Your task to perform on an android device: set the timer Image 0: 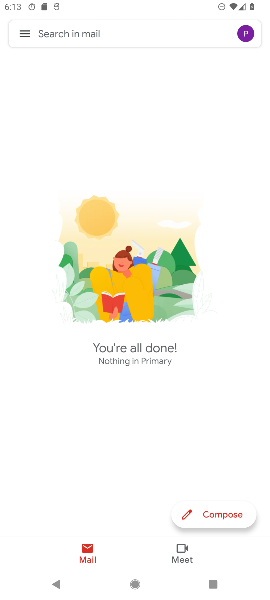
Step 0: press back button
Your task to perform on an android device: set the timer Image 1: 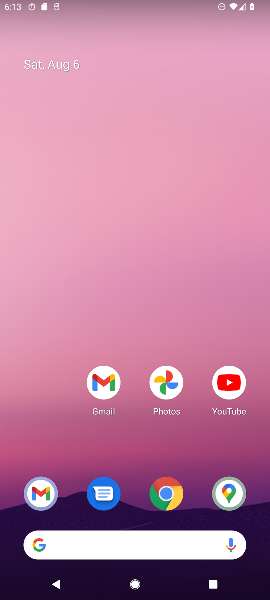
Step 1: drag from (171, 519) to (127, 297)
Your task to perform on an android device: set the timer Image 2: 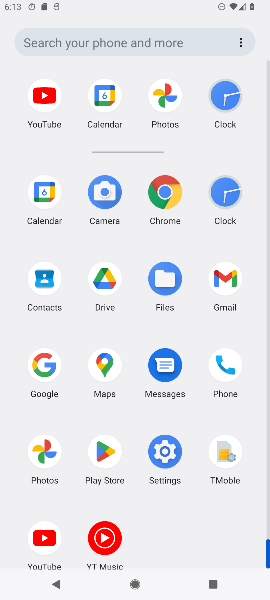
Step 2: click (229, 194)
Your task to perform on an android device: set the timer Image 3: 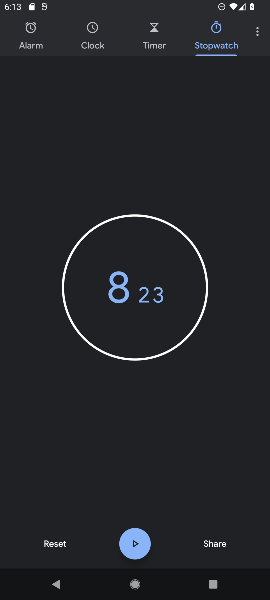
Step 3: click (159, 35)
Your task to perform on an android device: set the timer Image 4: 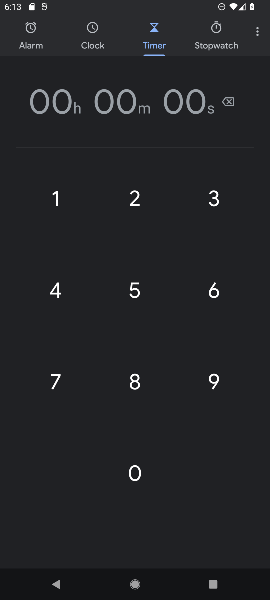
Step 4: click (131, 292)
Your task to perform on an android device: set the timer Image 5: 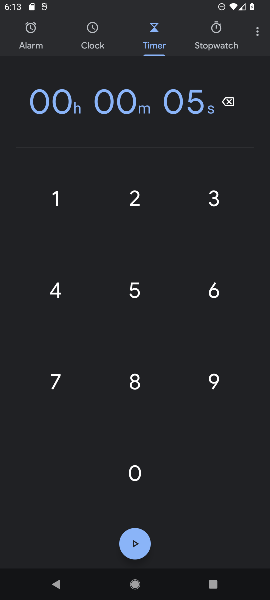
Step 5: click (139, 535)
Your task to perform on an android device: set the timer Image 6: 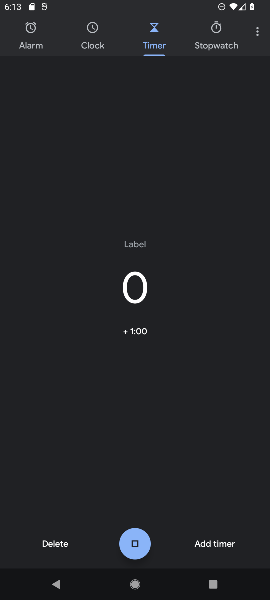
Step 6: click (131, 546)
Your task to perform on an android device: set the timer Image 7: 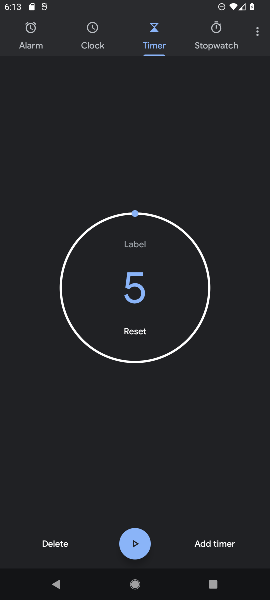
Step 7: task complete